Your task to perform on an android device: delete a single message in the gmail app Image 0: 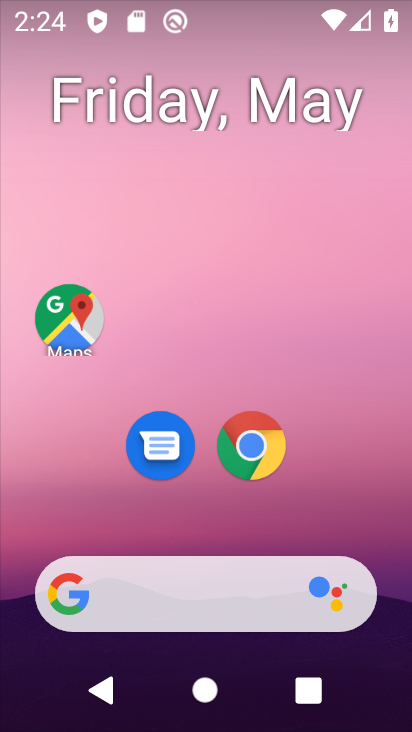
Step 0: press home button
Your task to perform on an android device: delete a single message in the gmail app Image 1: 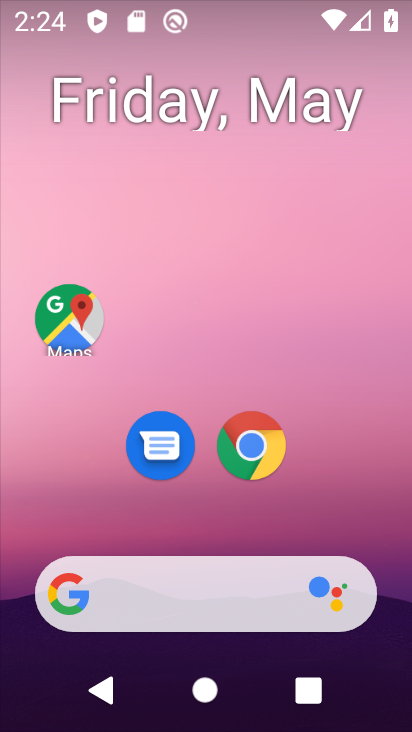
Step 1: drag from (335, 340) to (352, 77)
Your task to perform on an android device: delete a single message in the gmail app Image 2: 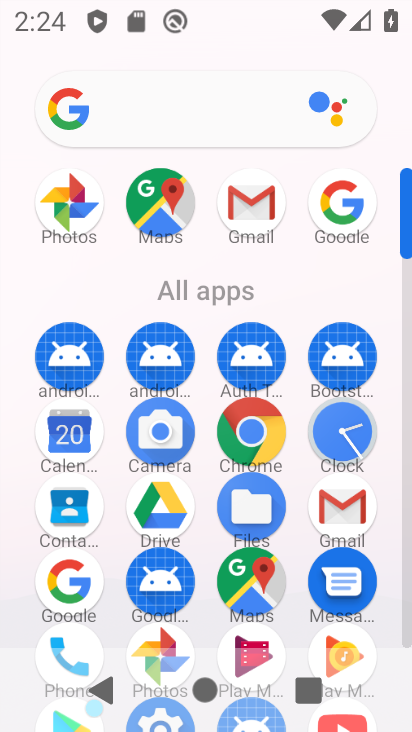
Step 2: click (350, 504)
Your task to perform on an android device: delete a single message in the gmail app Image 3: 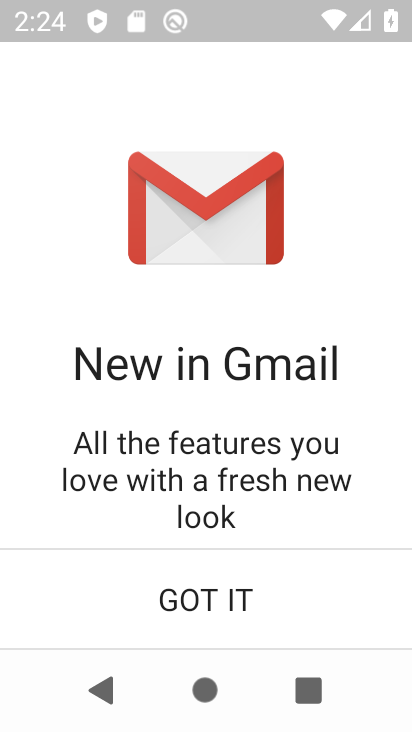
Step 3: click (213, 613)
Your task to perform on an android device: delete a single message in the gmail app Image 4: 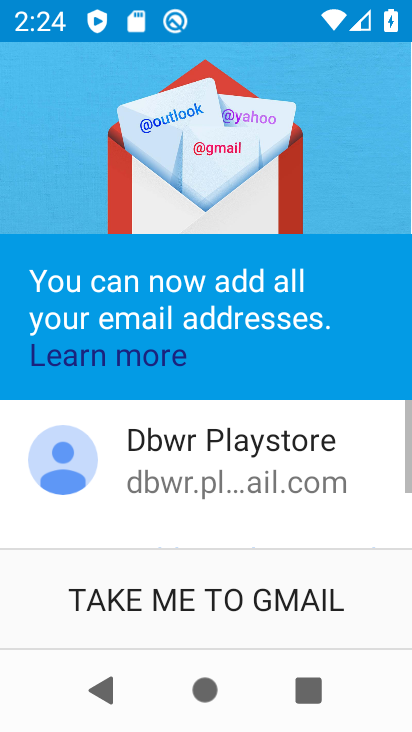
Step 4: click (213, 613)
Your task to perform on an android device: delete a single message in the gmail app Image 5: 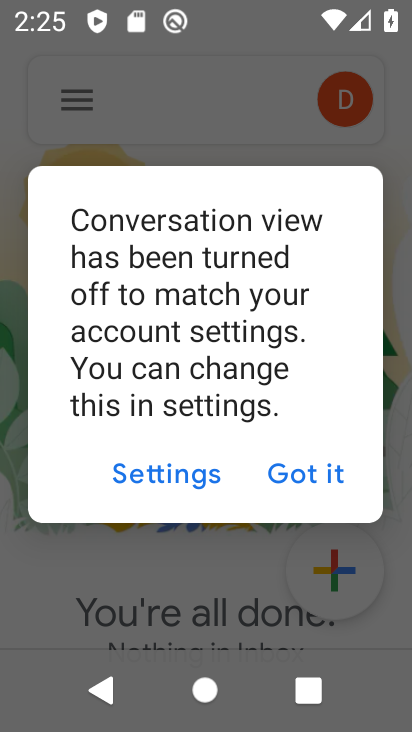
Step 5: click (306, 467)
Your task to perform on an android device: delete a single message in the gmail app Image 6: 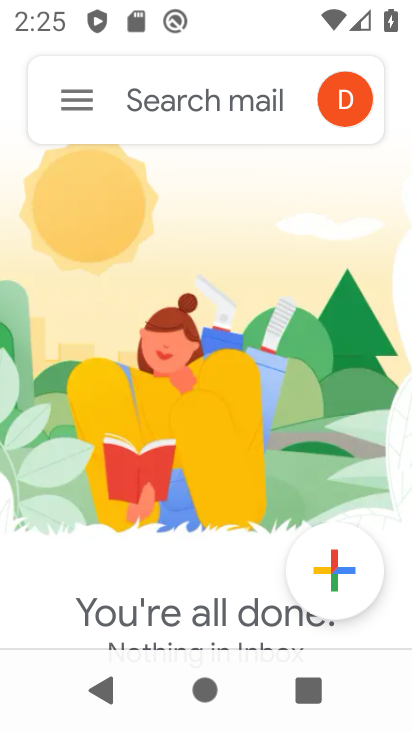
Step 6: task complete